Your task to perform on an android device: Open settings on Google Maps Image 0: 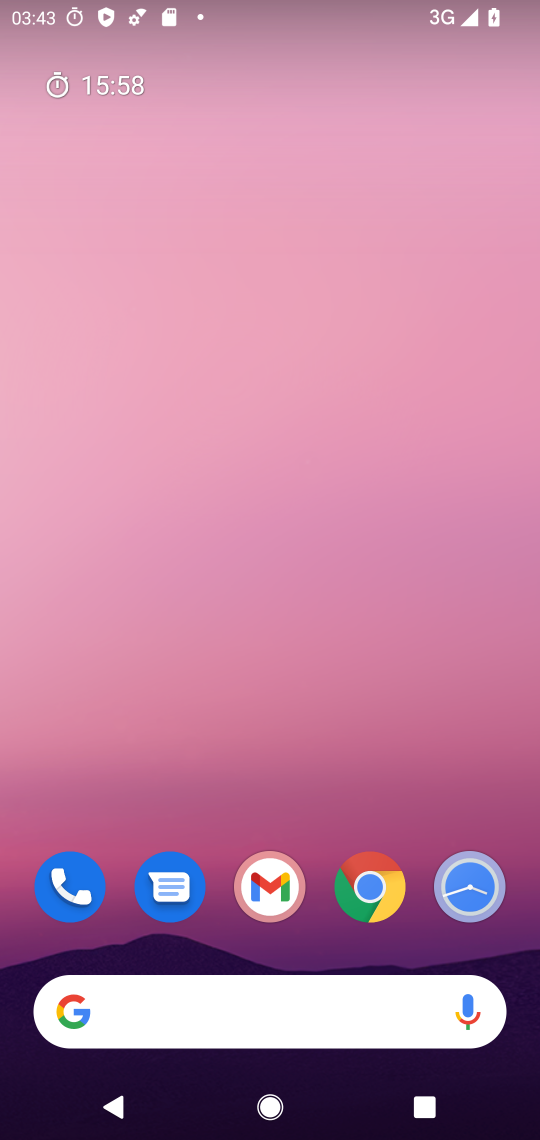
Step 0: press home button
Your task to perform on an android device: Open settings on Google Maps Image 1: 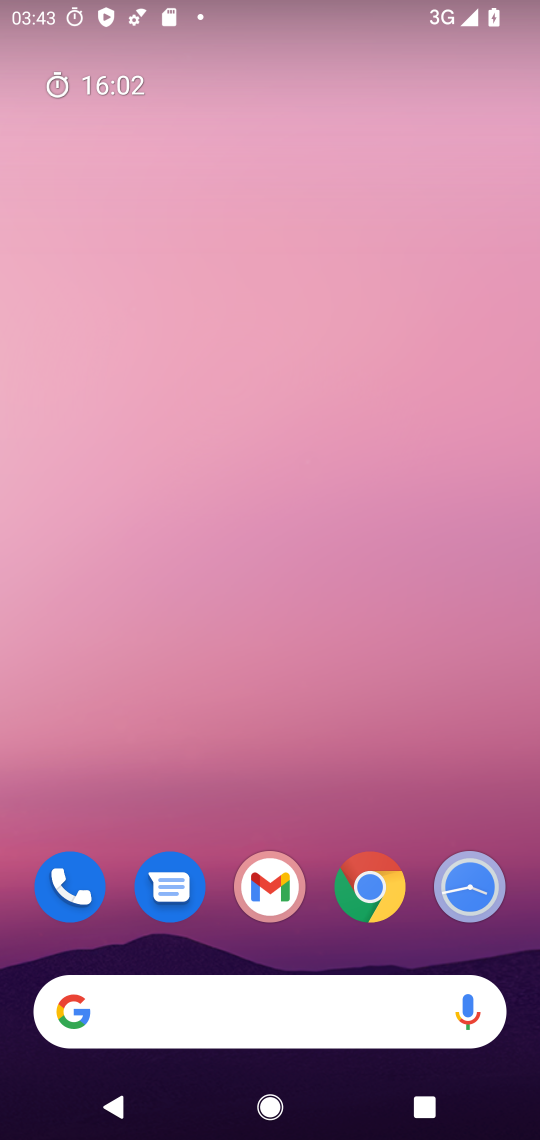
Step 1: drag from (411, 825) to (403, 272)
Your task to perform on an android device: Open settings on Google Maps Image 2: 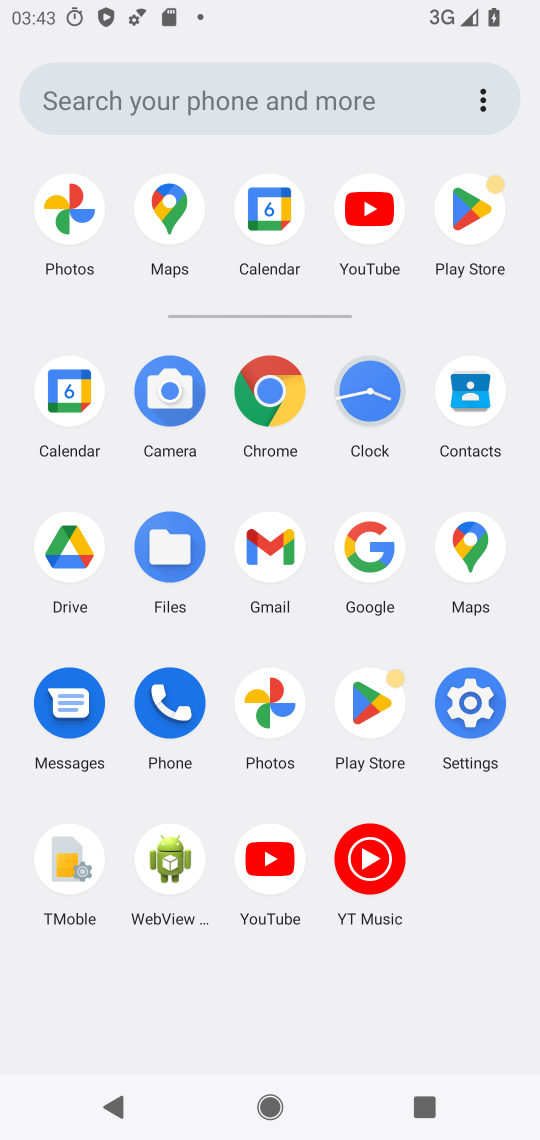
Step 2: click (462, 550)
Your task to perform on an android device: Open settings on Google Maps Image 3: 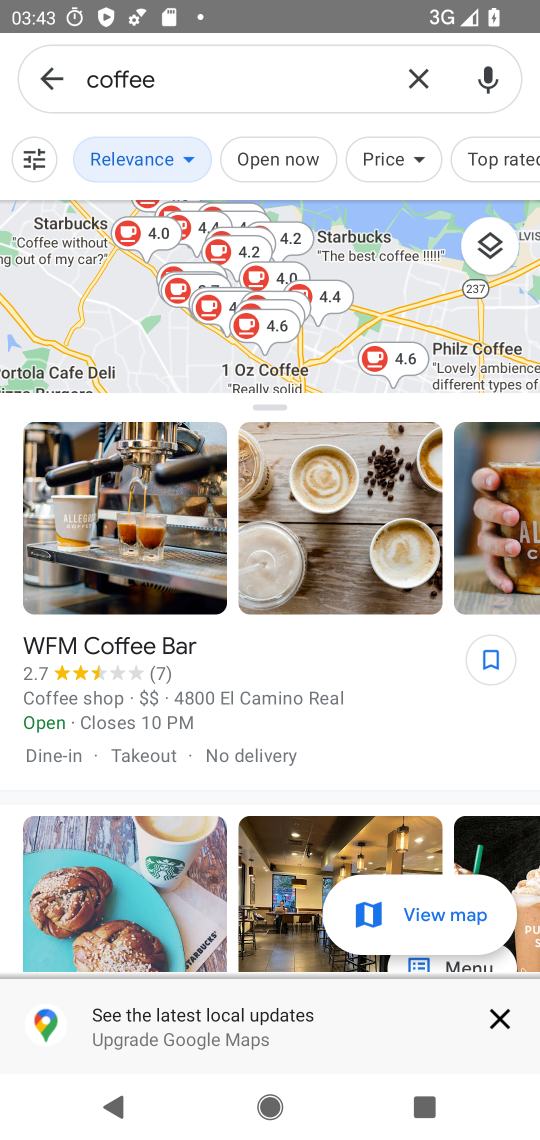
Step 3: press back button
Your task to perform on an android device: Open settings on Google Maps Image 4: 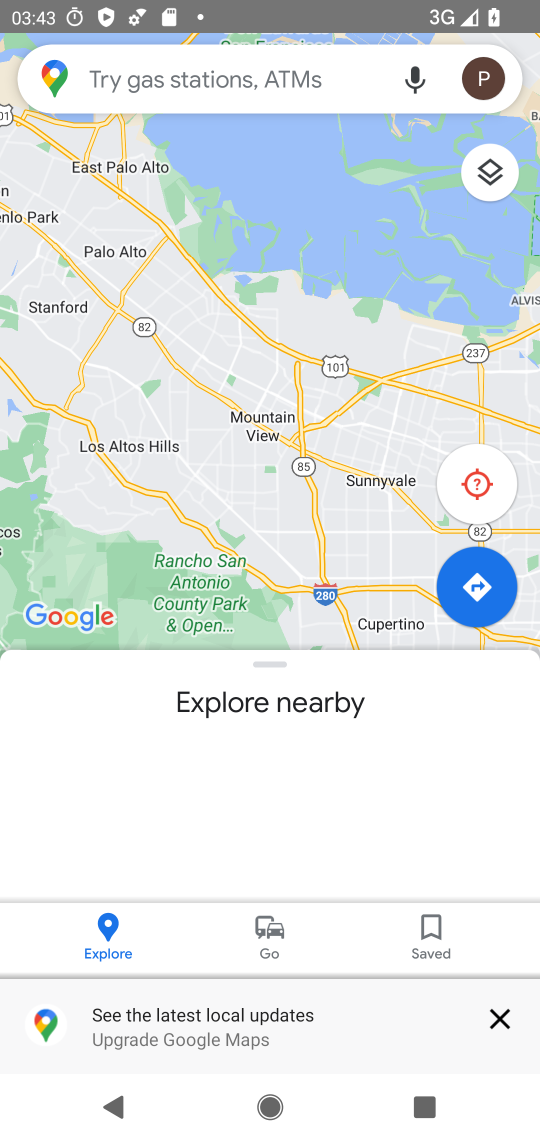
Step 4: click (484, 76)
Your task to perform on an android device: Open settings on Google Maps Image 5: 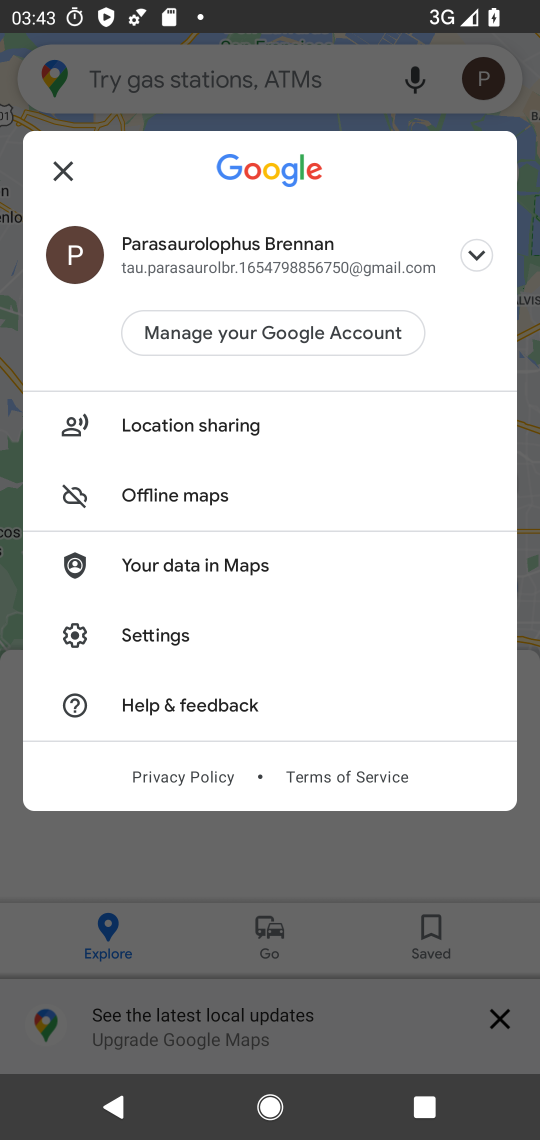
Step 5: click (163, 638)
Your task to perform on an android device: Open settings on Google Maps Image 6: 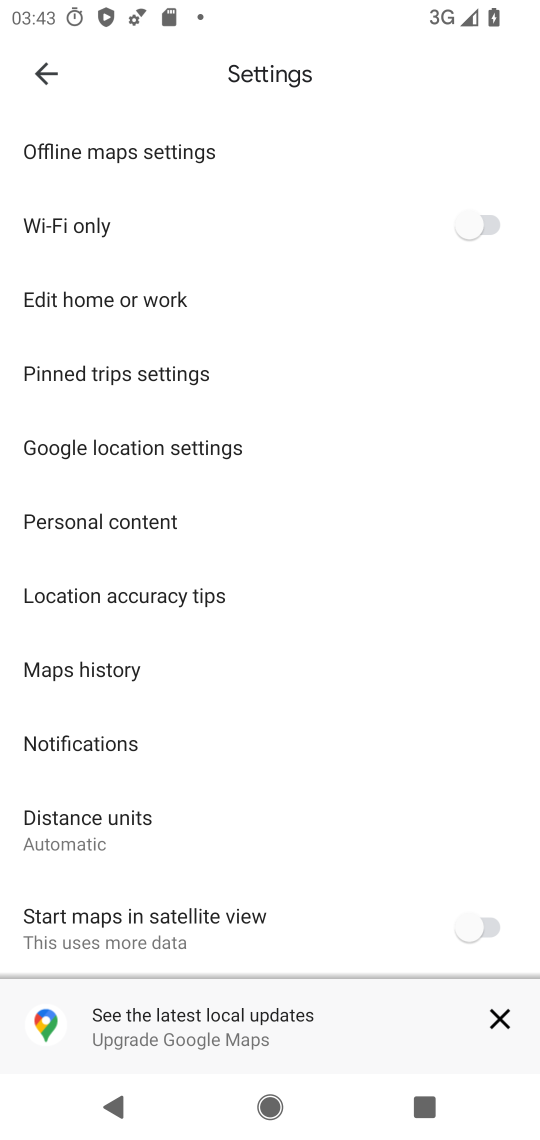
Step 6: click (358, 636)
Your task to perform on an android device: Open settings on Google Maps Image 7: 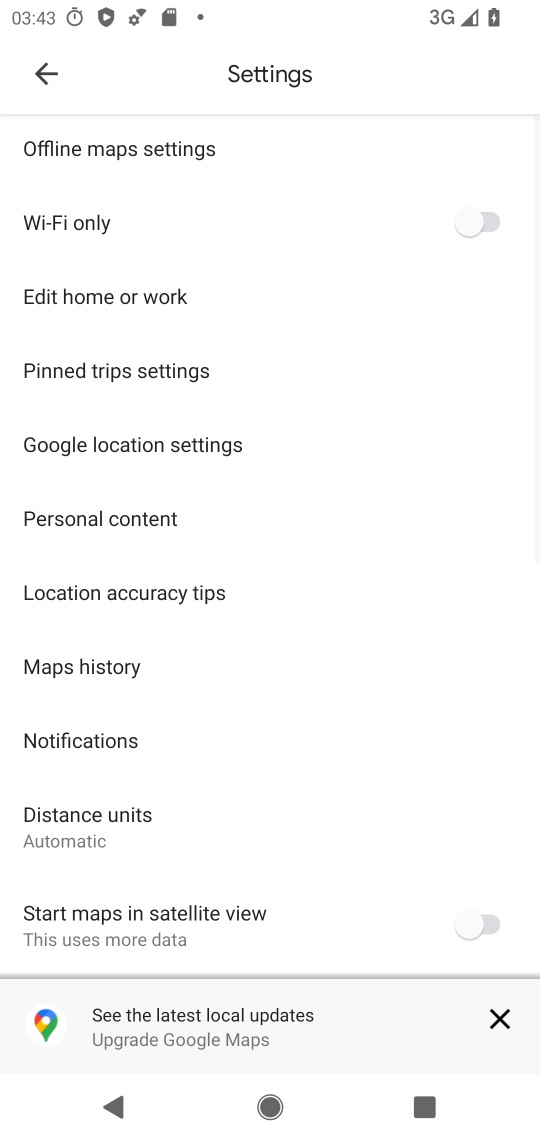
Step 7: task complete